Your task to perform on an android device: Search for pizza restaurants on Maps Image 0: 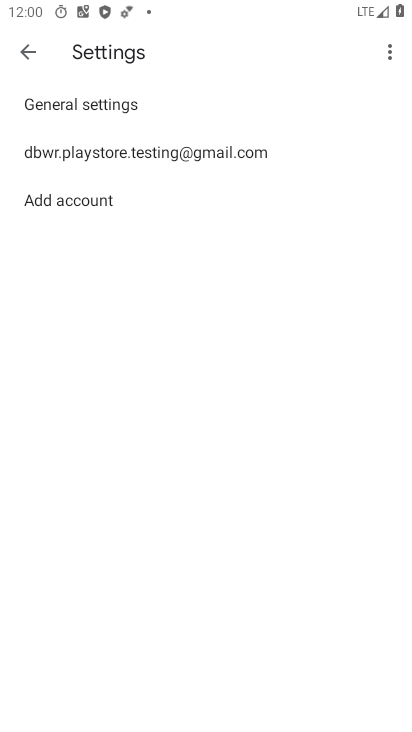
Step 0: click (180, 536)
Your task to perform on an android device: Search for pizza restaurants on Maps Image 1: 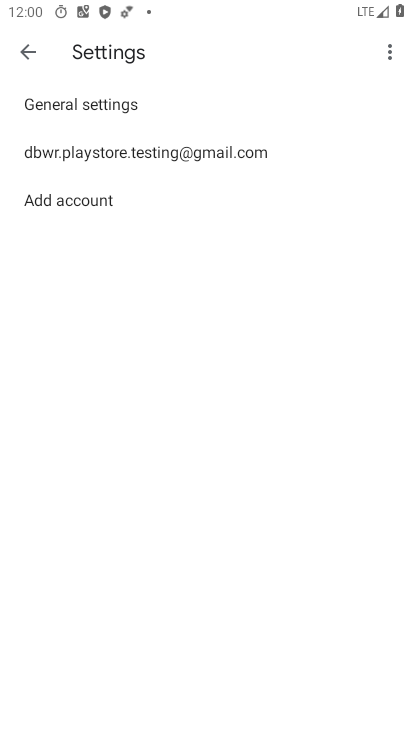
Step 1: click (27, 46)
Your task to perform on an android device: Search for pizza restaurants on Maps Image 2: 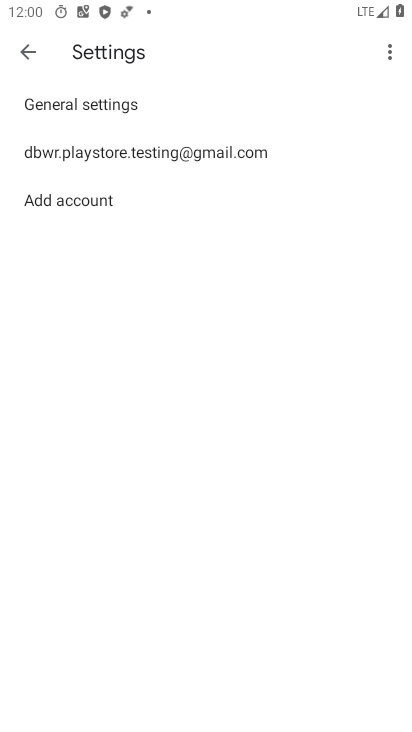
Step 2: press home button
Your task to perform on an android device: Search for pizza restaurants on Maps Image 3: 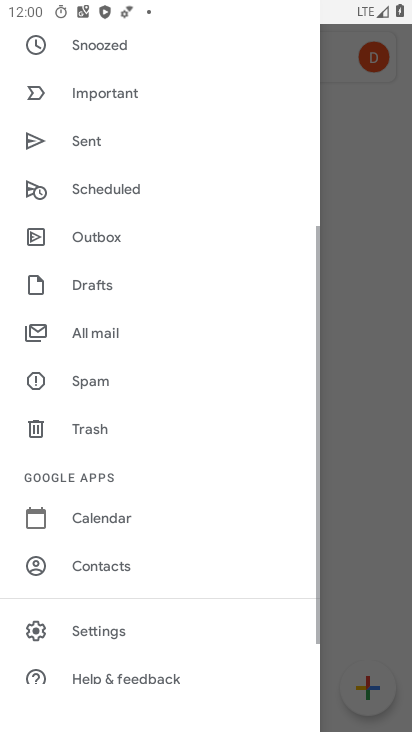
Step 3: press home button
Your task to perform on an android device: Search for pizza restaurants on Maps Image 4: 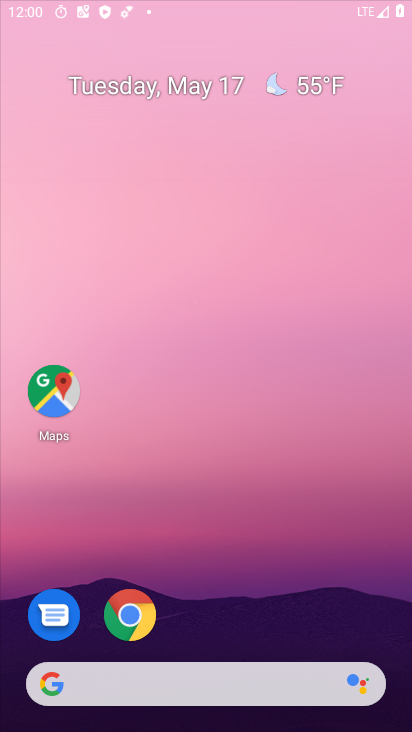
Step 4: press home button
Your task to perform on an android device: Search for pizza restaurants on Maps Image 5: 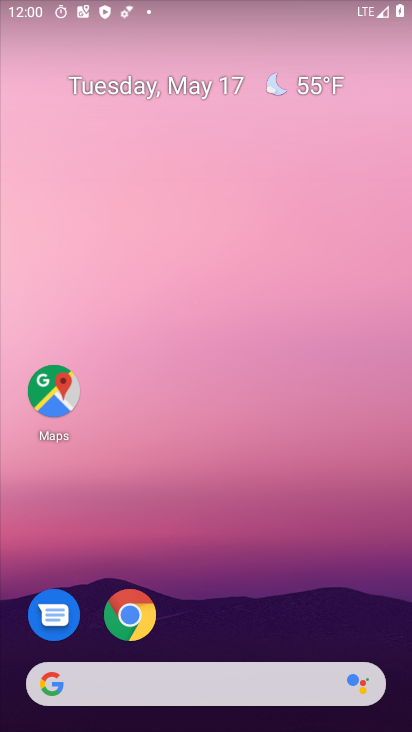
Step 5: click (56, 366)
Your task to perform on an android device: Search for pizza restaurants on Maps Image 6: 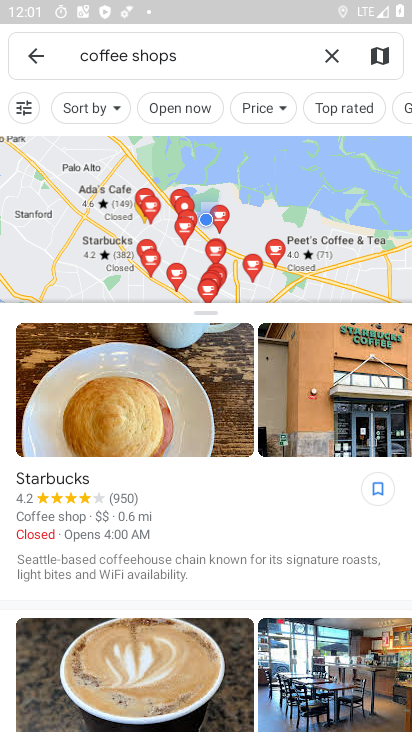
Step 6: click (211, 63)
Your task to perform on an android device: Search for pizza restaurants on Maps Image 7: 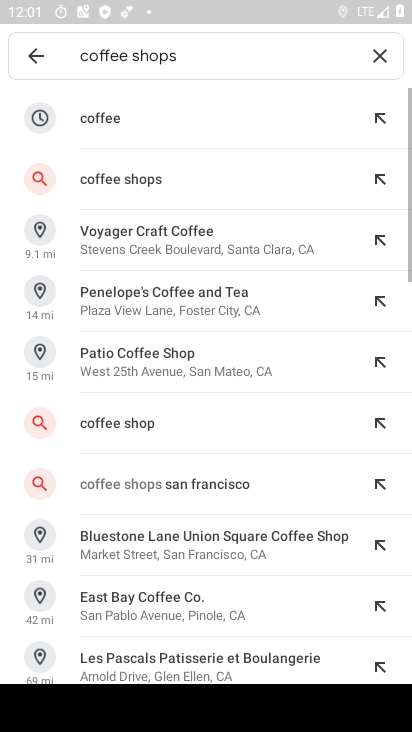
Step 7: click (383, 50)
Your task to perform on an android device: Search for pizza restaurants on Maps Image 8: 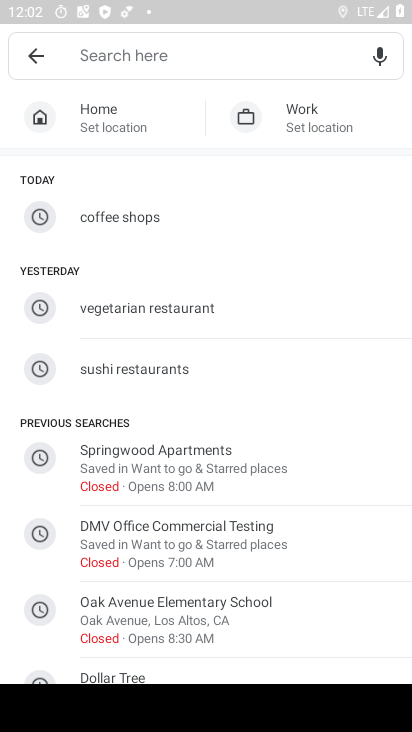
Step 8: type " pizza restaurants "
Your task to perform on an android device: Search for pizza restaurants on Maps Image 9: 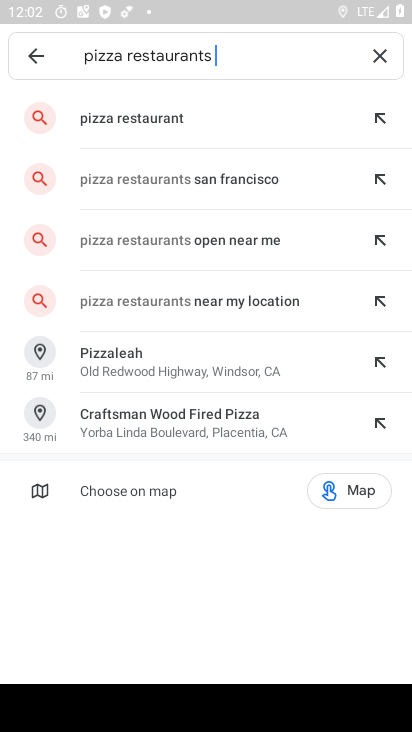
Step 9: click (97, 106)
Your task to perform on an android device: Search for pizza restaurants on Maps Image 10: 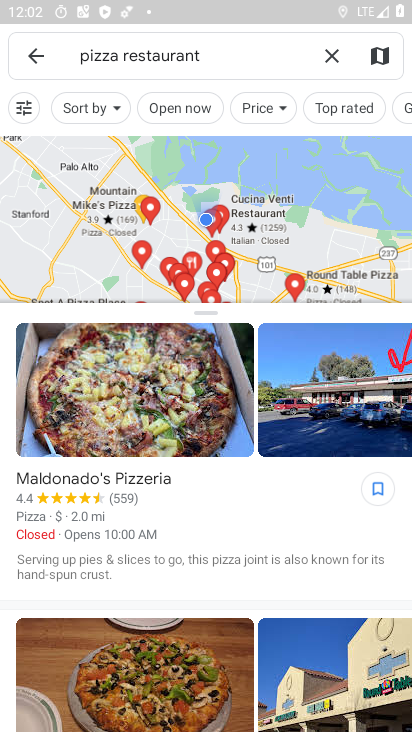
Step 10: task complete